Your task to perform on an android device: check out phone information Image 0: 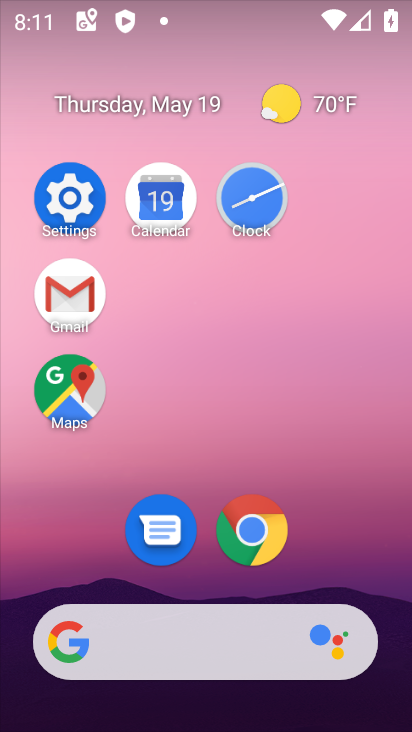
Step 0: click (31, 213)
Your task to perform on an android device: check out phone information Image 1: 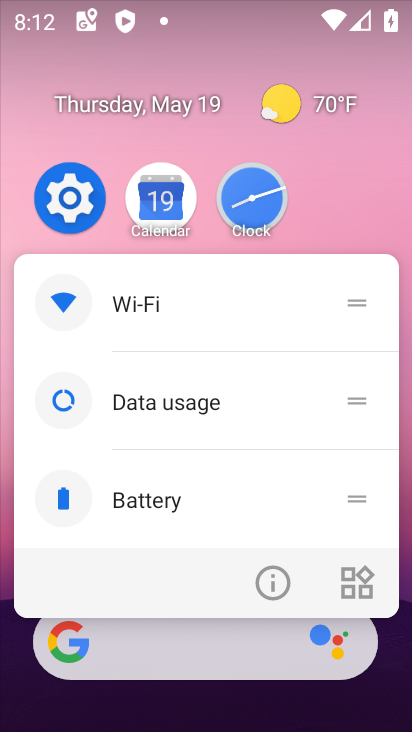
Step 1: click (54, 189)
Your task to perform on an android device: check out phone information Image 2: 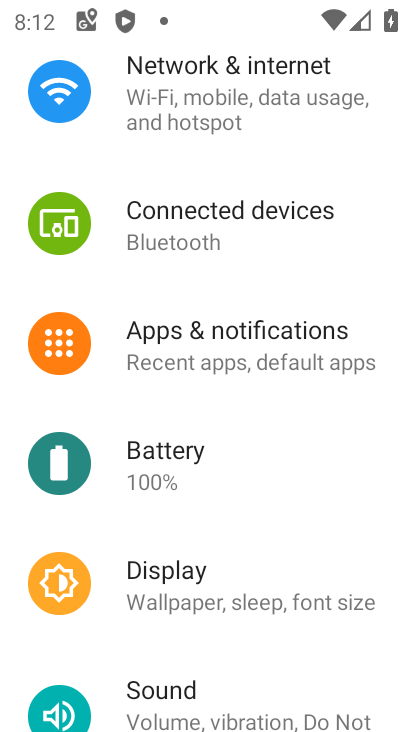
Step 2: drag from (248, 659) to (317, 83)
Your task to perform on an android device: check out phone information Image 3: 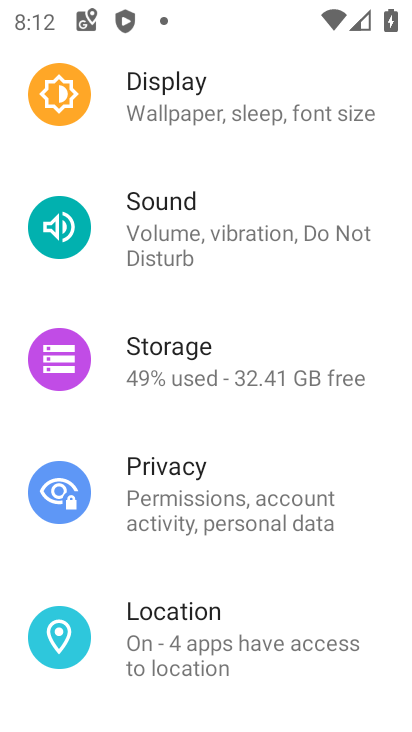
Step 3: drag from (245, 574) to (238, 129)
Your task to perform on an android device: check out phone information Image 4: 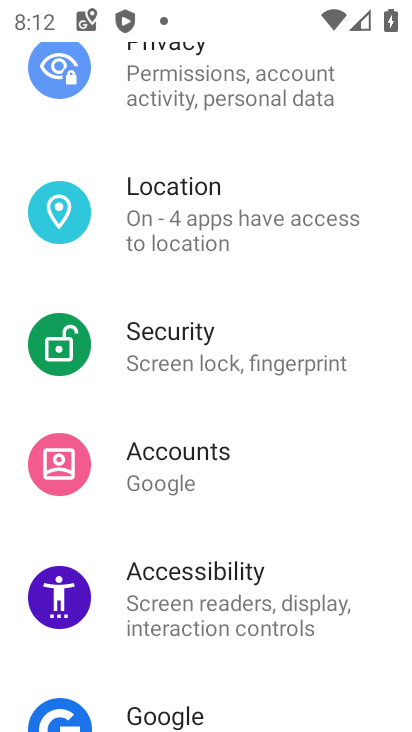
Step 4: drag from (278, 672) to (261, 230)
Your task to perform on an android device: check out phone information Image 5: 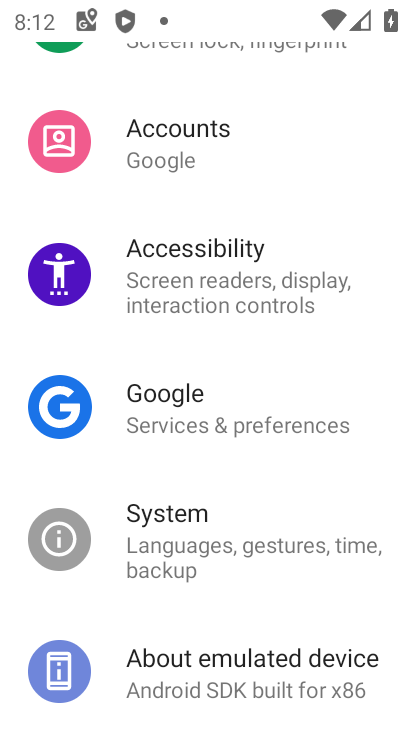
Step 5: click (253, 673)
Your task to perform on an android device: check out phone information Image 6: 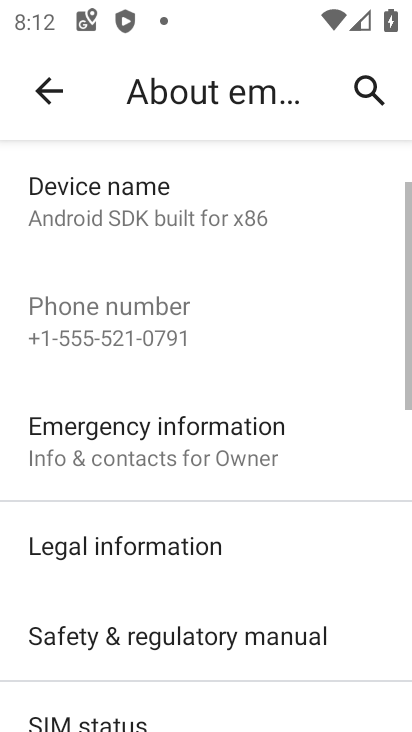
Step 6: drag from (208, 591) to (223, 303)
Your task to perform on an android device: check out phone information Image 7: 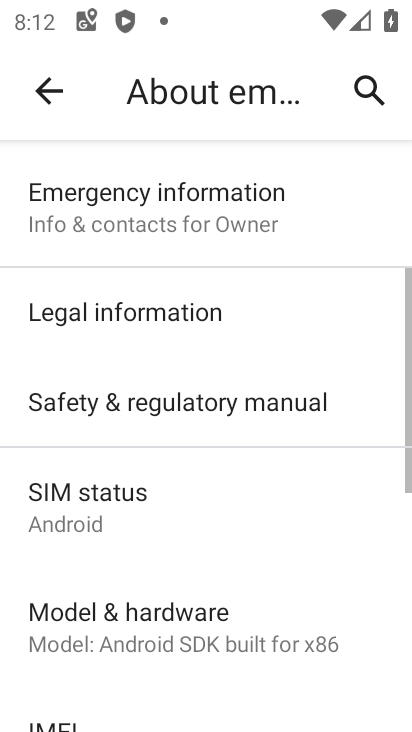
Step 7: click (213, 620)
Your task to perform on an android device: check out phone information Image 8: 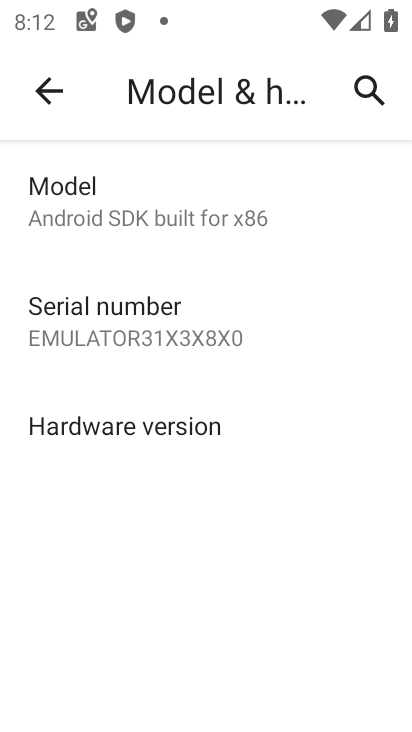
Step 8: task complete